Your task to perform on an android device: open a bookmark in the chrome app Image 0: 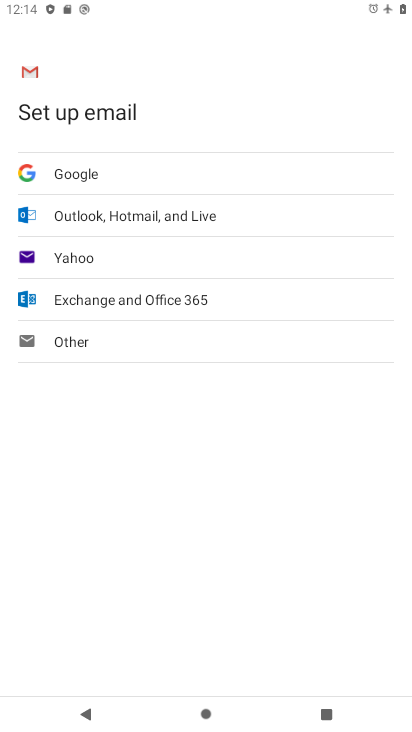
Step 0: press home button
Your task to perform on an android device: open a bookmark in the chrome app Image 1: 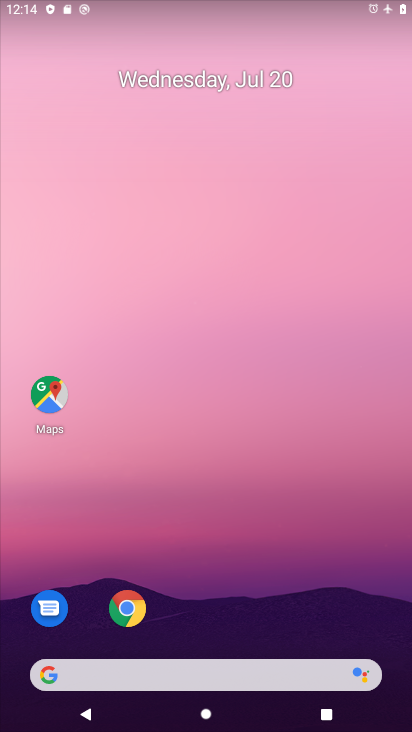
Step 1: click (128, 609)
Your task to perform on an android device: open a bookmark in the chrome app Image 2: 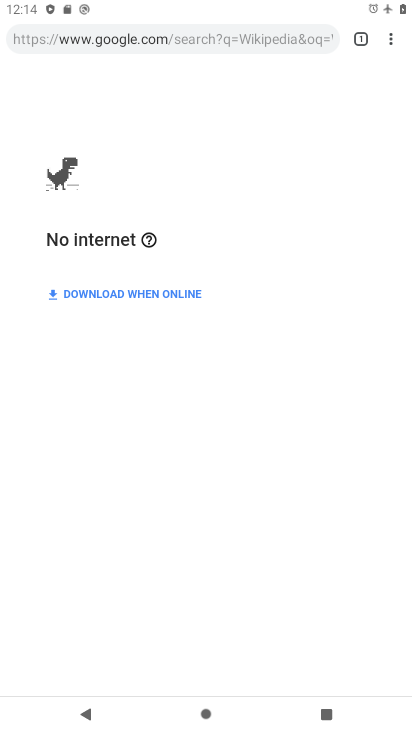
Step 2: click (392, 39)
Your task to perform on an android device: open a bookmark in the chrome app Image 3: 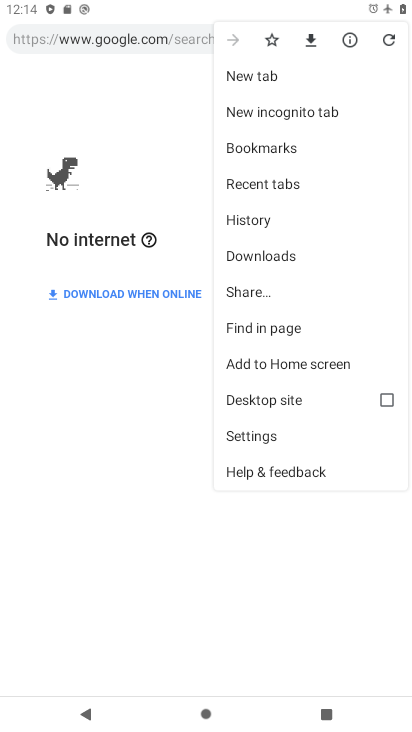
Step 3: click (275, 153)
Your task to perform on an android device: open a bookmark in the chrome app Image 4: 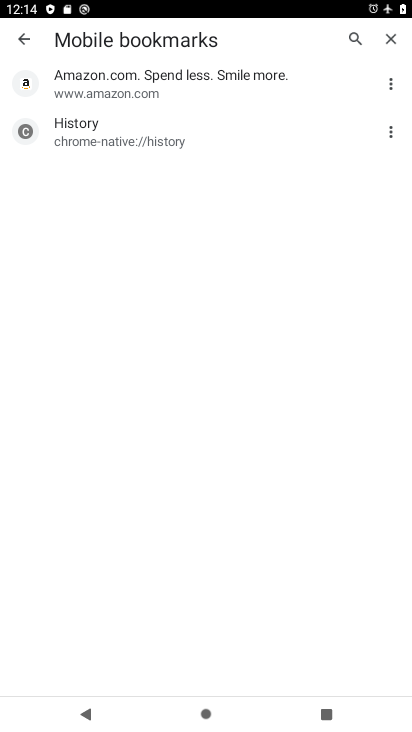
Step 4: task complete